Your task to perform on an android device: turn on airplane mode Image 0: 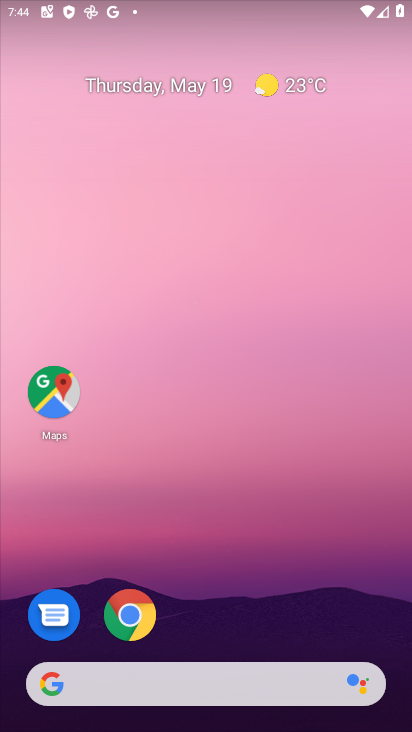
Step 0: drag from (340, 608) to (310, 110)
Your task to perform on an android device: turn on airplane mode Image 1: 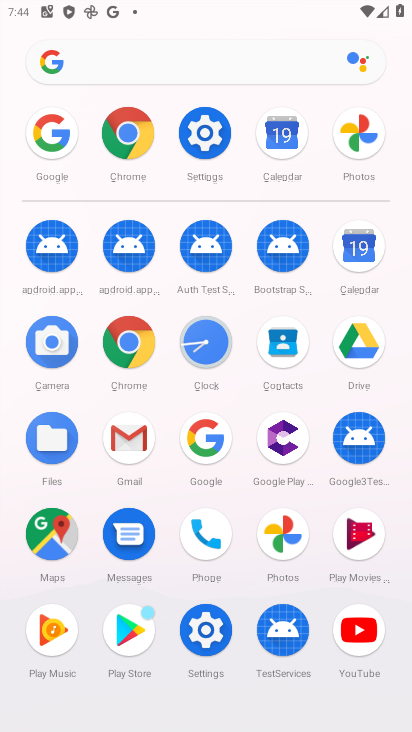
Step 1: drag from (254, 1) to (218, 546)
Your task to perform on an android device: turn on airplane mode Image 2: 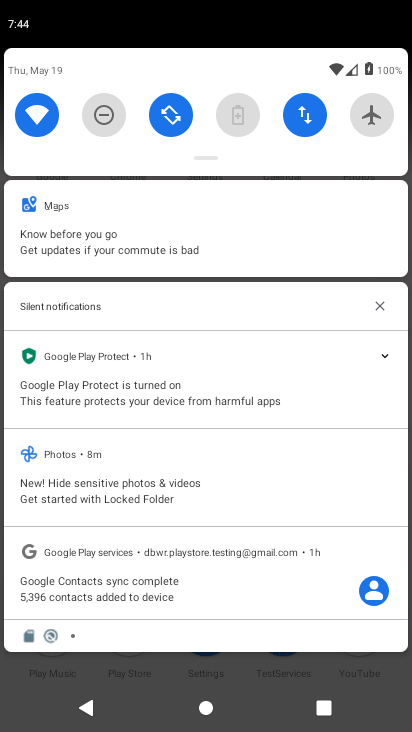
Step 2: click (365, 116)
Your task to perform on an android device: turn on airplane mode Image 3: 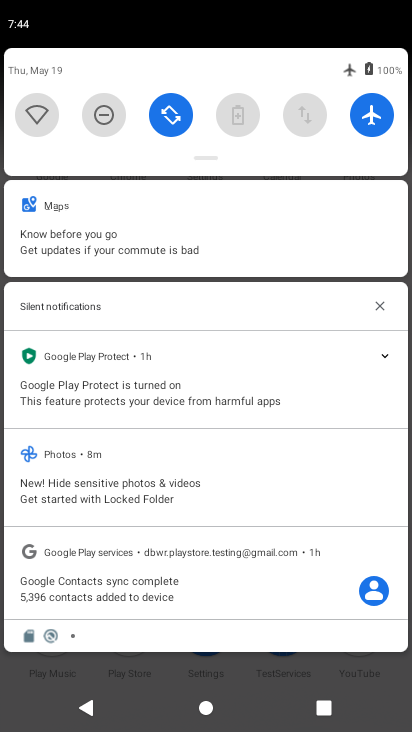
Step 3: task complete